Your task to perform on an android device: Go to sound settings Image 0: 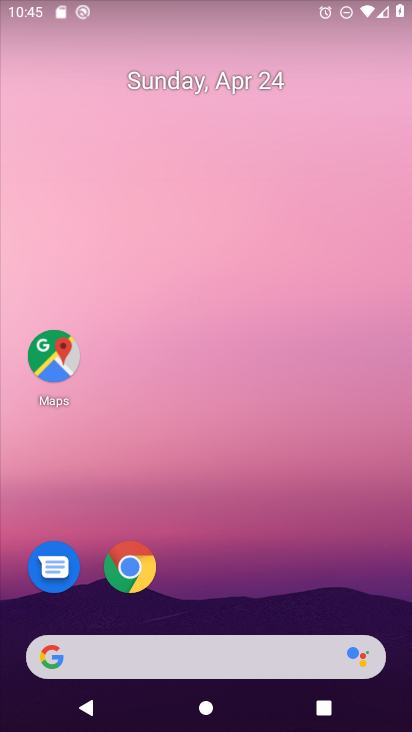
Step 0: drag from (129, 610) to (177, 104)
Your task to perform on an android device: Go to sound settings Image 1: 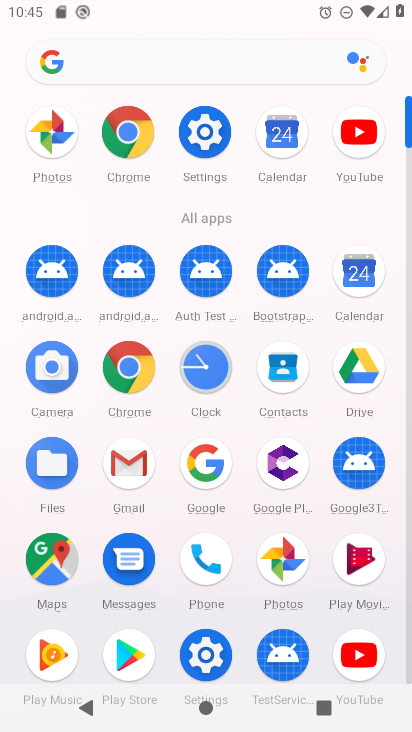
Step 1: click (206, 142)
Your task to perform on an android device: Go to sound settings Image 2: 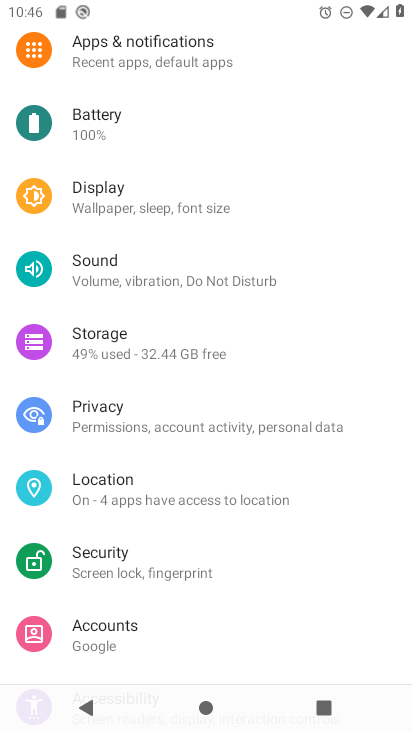
Step 2: click (116, 274)
Your task to perform on an android device: Go to sound settings Image 3: 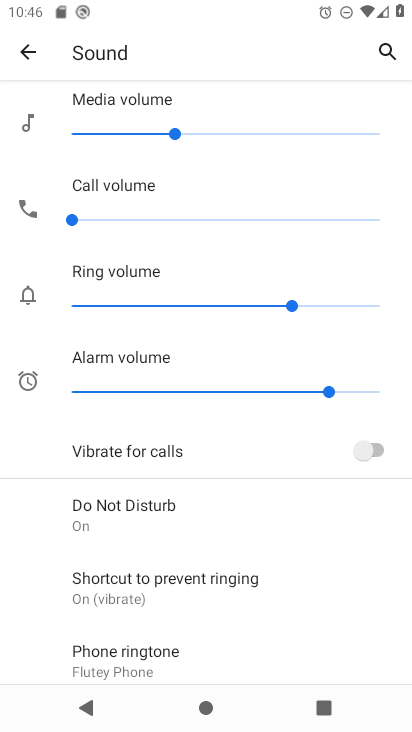
Step 3: task complete